Your task to perform on an android device: add a label to a message in the gmail app Image 0: 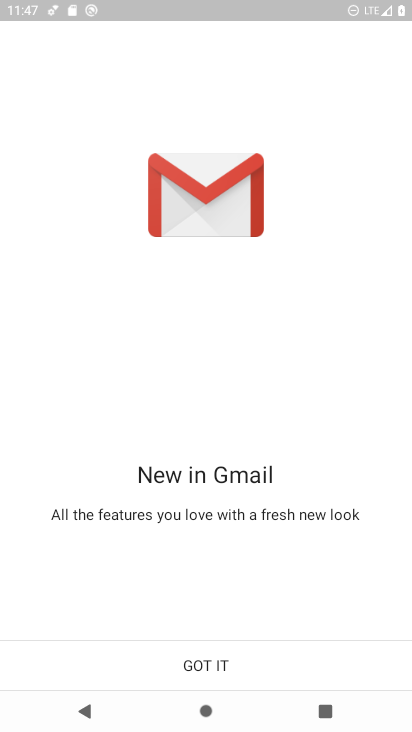
Step 0: press home button
Your task to perform on an android device: add a label to a message in the gmail app Image 1: 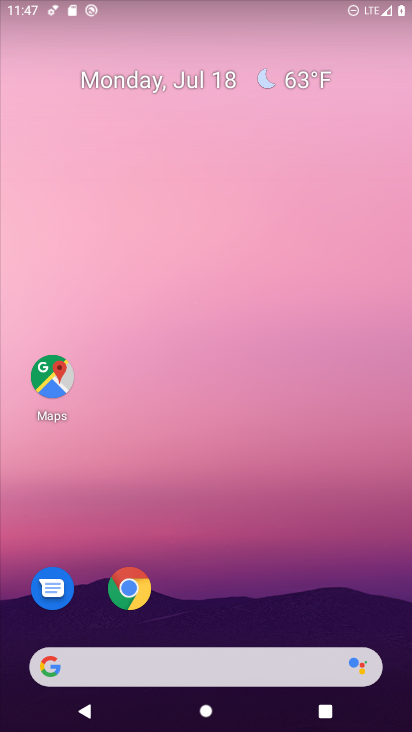
Step 1: drag from (182, 652) to (242, 291)
Your task to perform on an android device: add a label to a message in the gmail app Image 2: 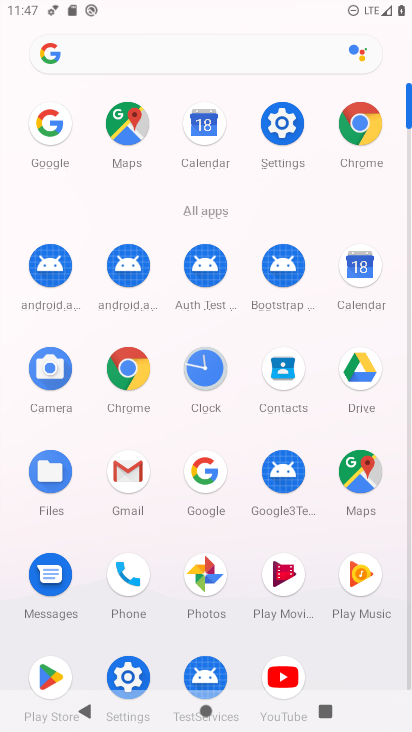
Step 2: click (118, 483)
Your task to perform on an android device: add a label to a message in the gmail app Image 3: 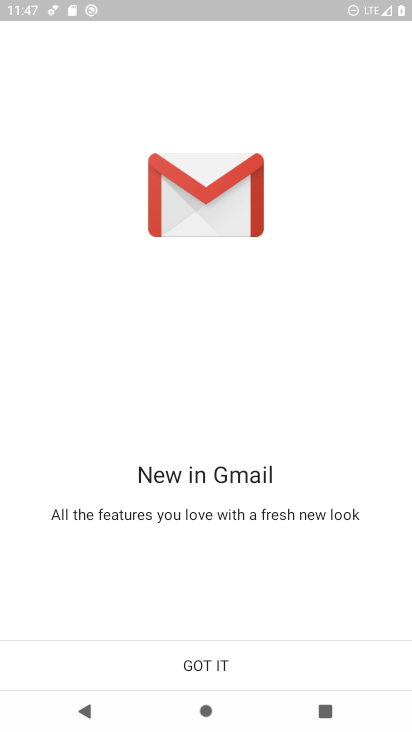
Step 3: click (183, 656)
Your task to perform on an android device: add a label to a message in the gmail app Image 4: 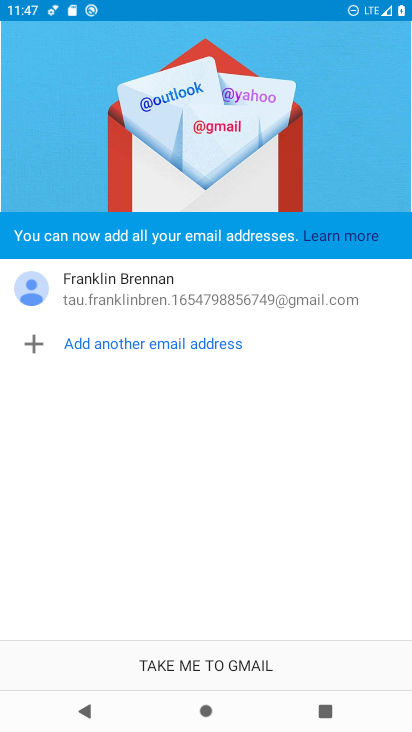
Step 4: click (183, 656)
Your task to perform on an android device: add a label to a message in the gmail app Image 5: 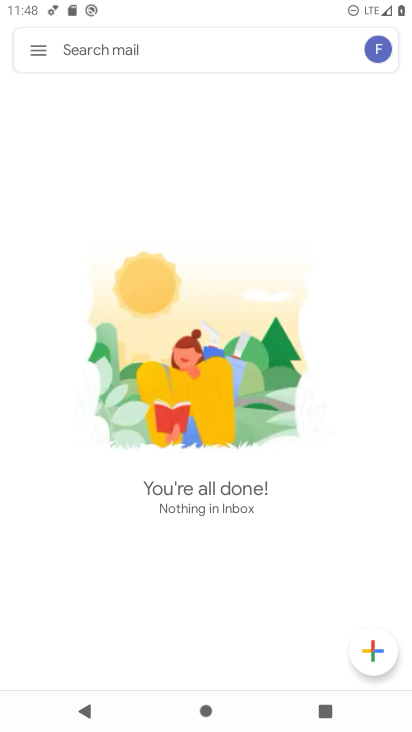
Step 5: task complete